Your task to perform on an android device: turn off wifi Image 0: 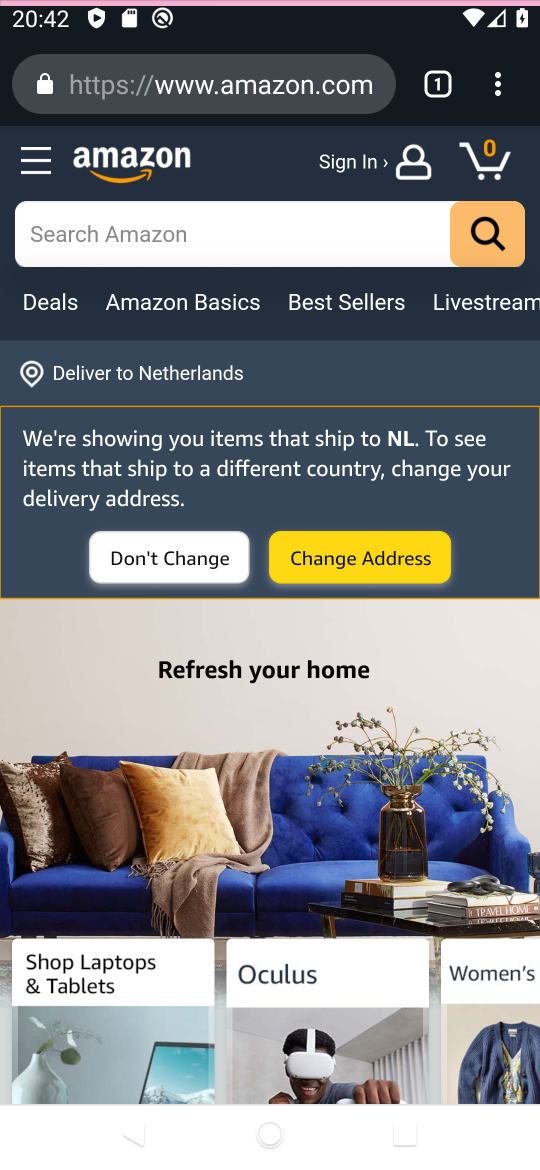
Step 0: click (259, 19)
Your task to perform on an android device: turn off wifi Image 1: 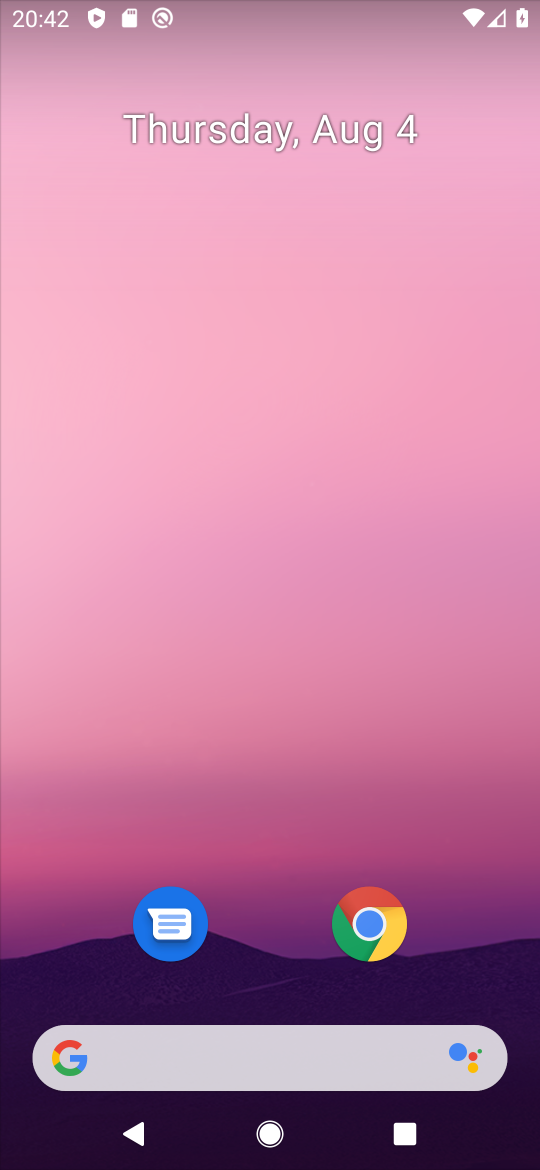
Step 1: press home button
Your task to perform on an android device: turn off wifi Image 2: 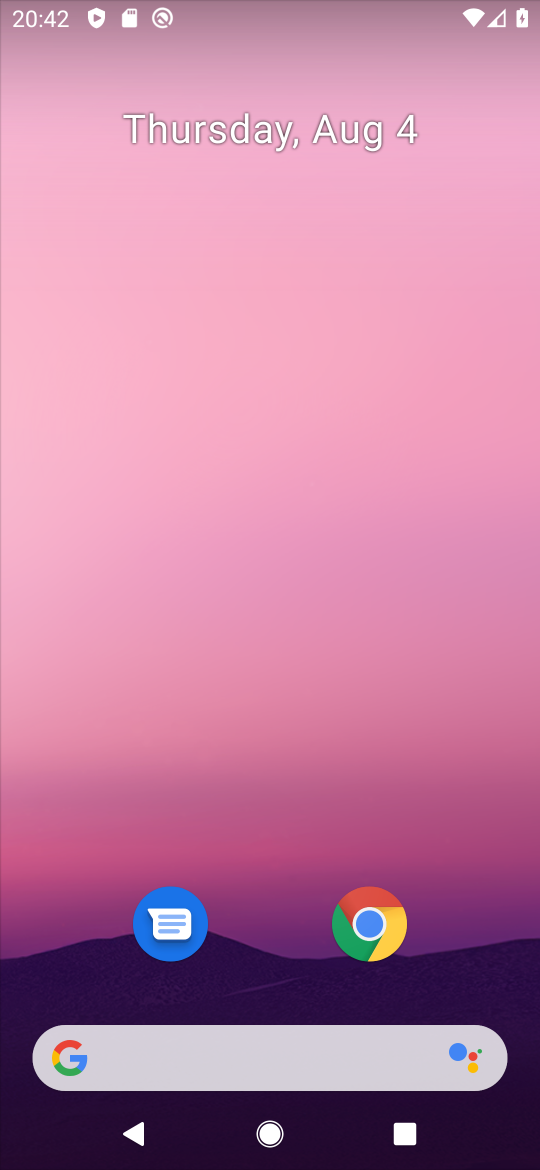
Step 2: drag from (303, 971) to (209, 80)
Your task to perform on an android device: turn off wifi Image 3: 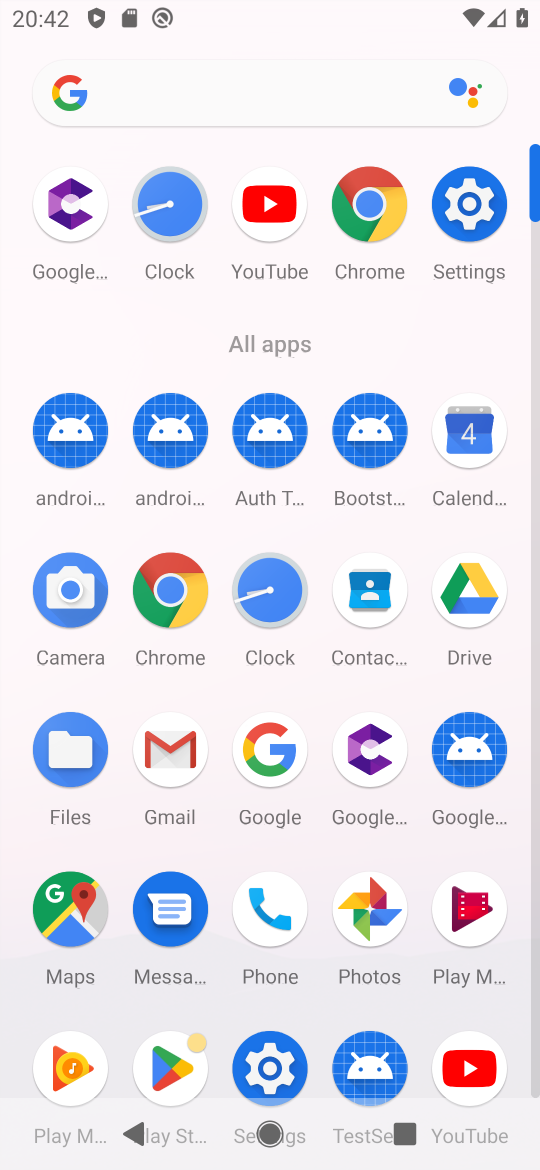
Step 3: click (473, 230)
Your task to perform on an android device: turn off wifi Image 4: 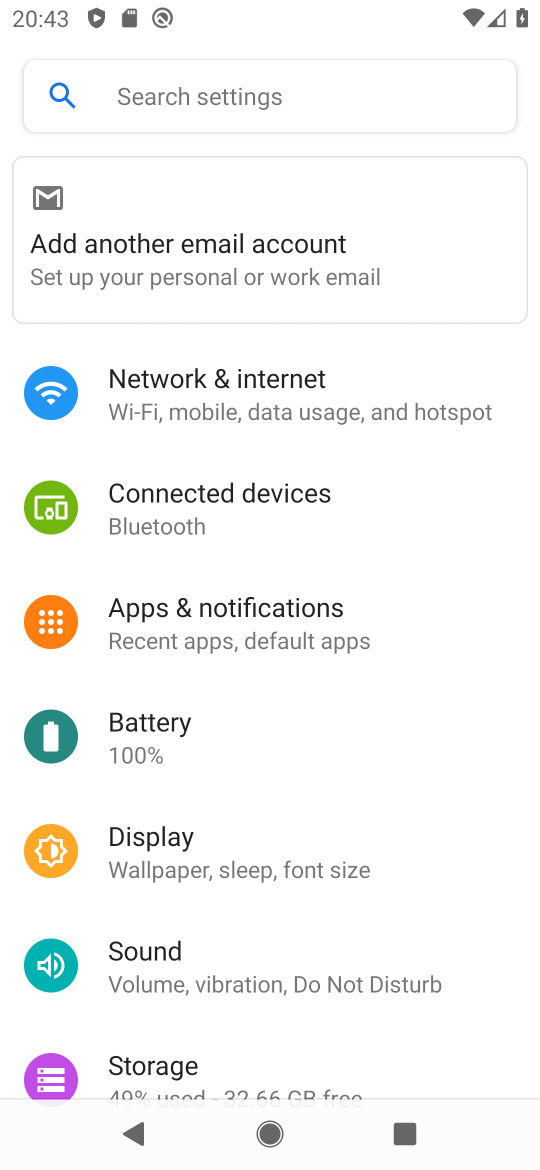
Step 4: click (195, 388)
Your task to perform on an android device: turn off wifi Image 5: 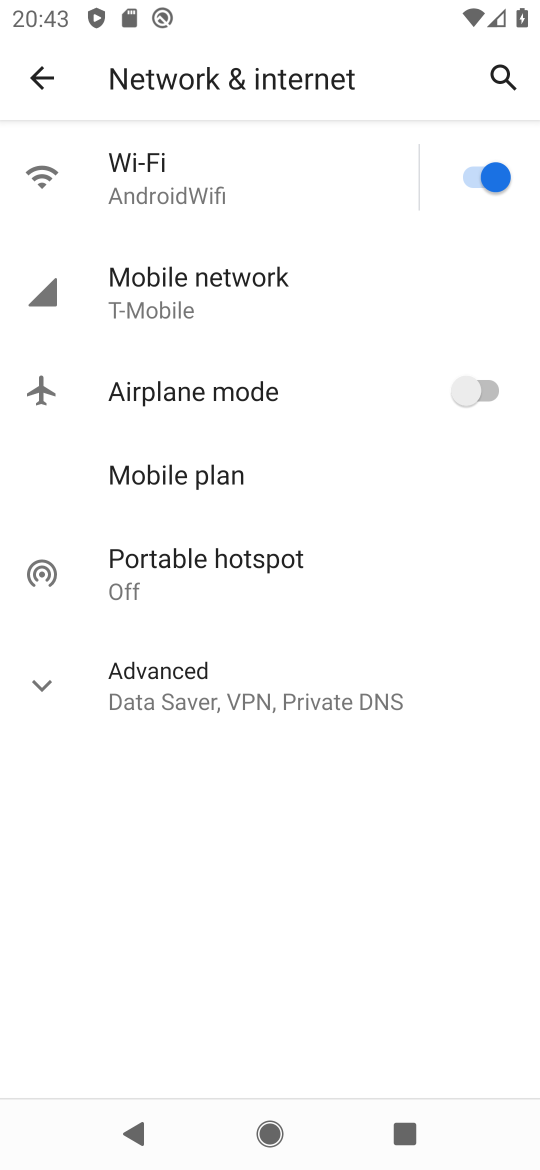
Step 5: click (463, 183)
Your task to perform on an android device: turn off wifi Image 6: 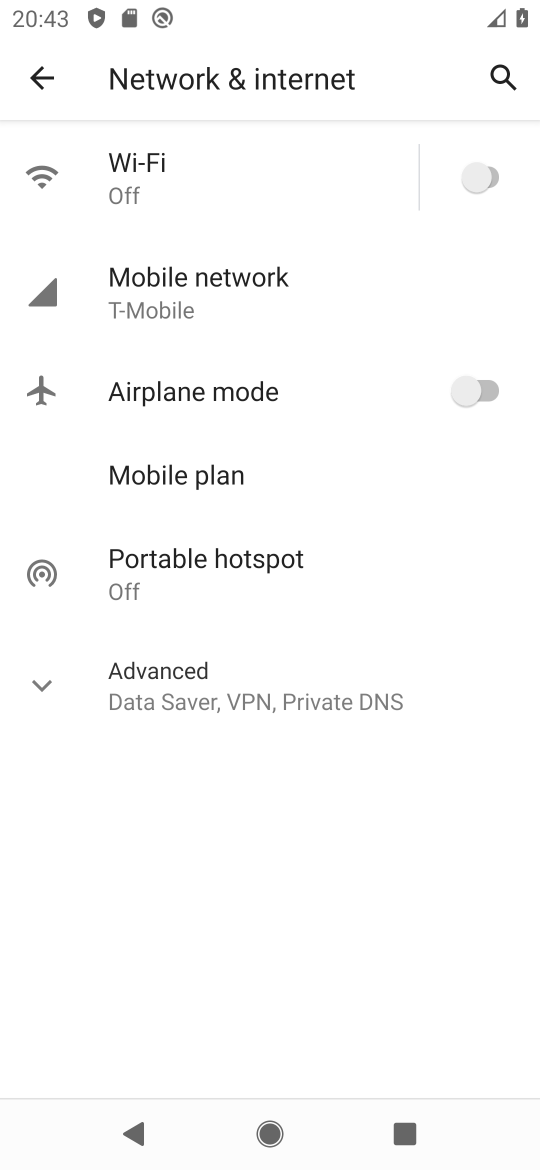
Step 6: task complete